Your task to perform on an android device: install app "AliExpress" Image 0: 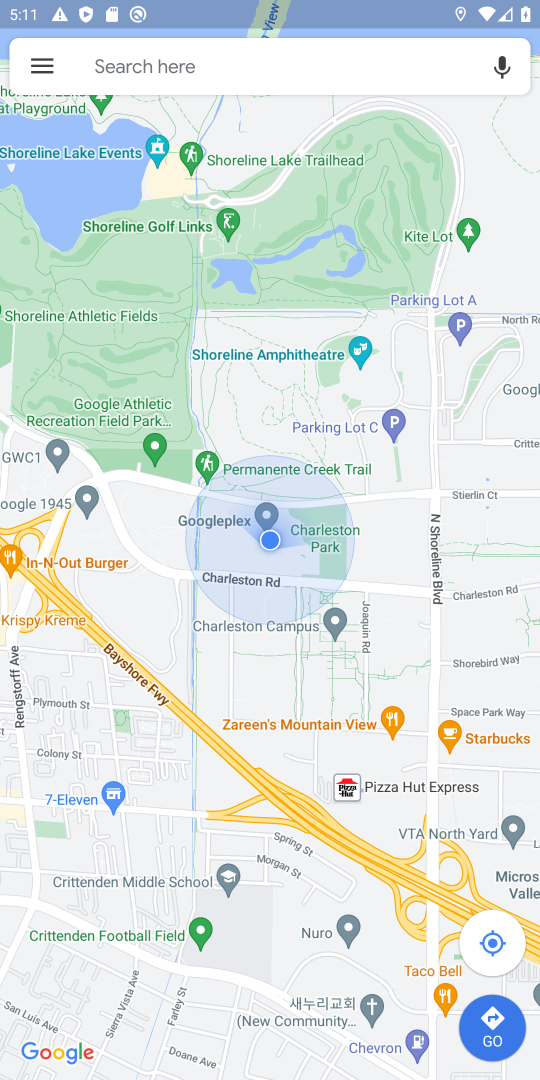
Step 0: press home button
Your task to perform on an android device: install app "AliExpress" Image 1: 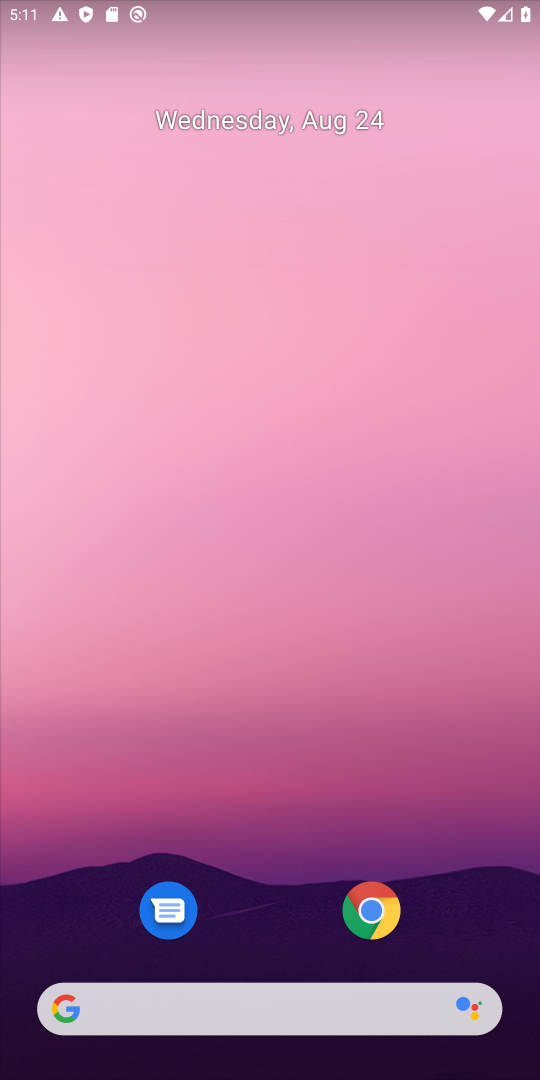
Step 1: drag from (282, 749) to (183, 30)
Your task to perform on an android device: install app "AliExpress" Image 2: 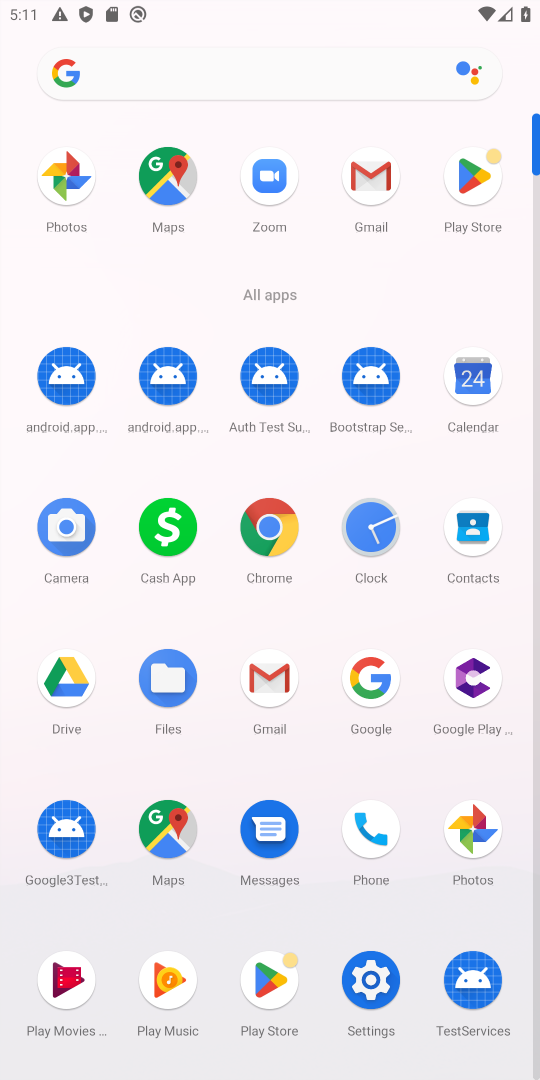
Step 2: click (475, 204)
Your task to perform on an android device: install app "AliExpress" Image 3: 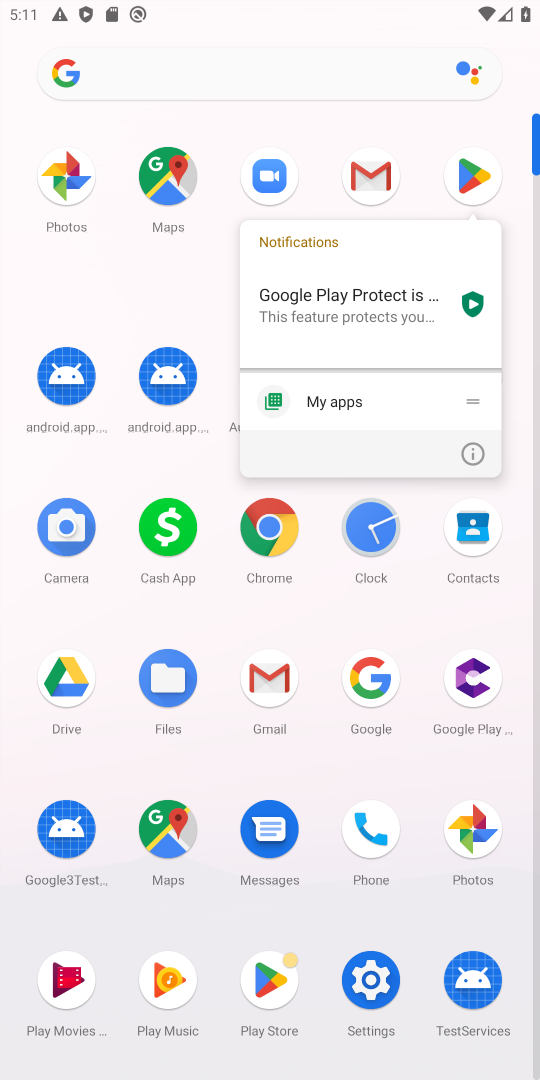
Step 3: click (469, 166)
Your task to perform on an android device: install app "AliExpress" Image 4: 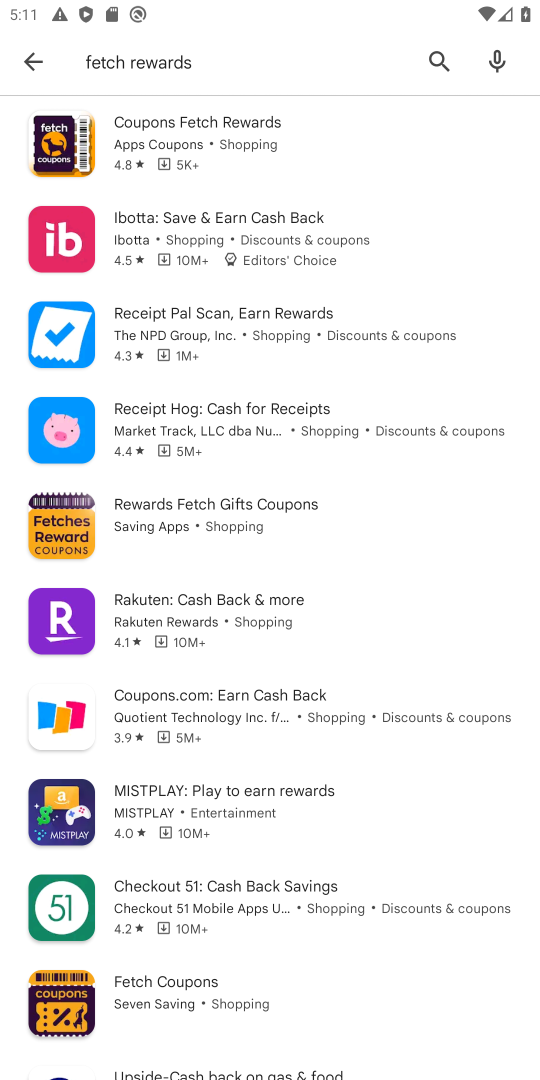
Step 4: click (434, 59)
Your task to perform on an android device: install app "AliExpress" Image 5: 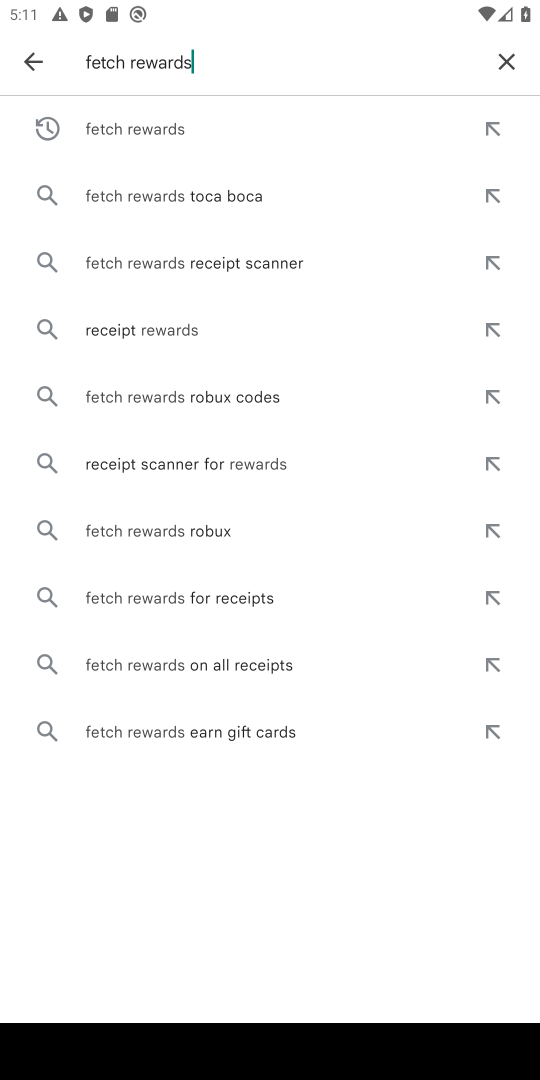
Step 5: click (504, 58)
Your task to perform on an android device: install app "AliExpress" Image 6: 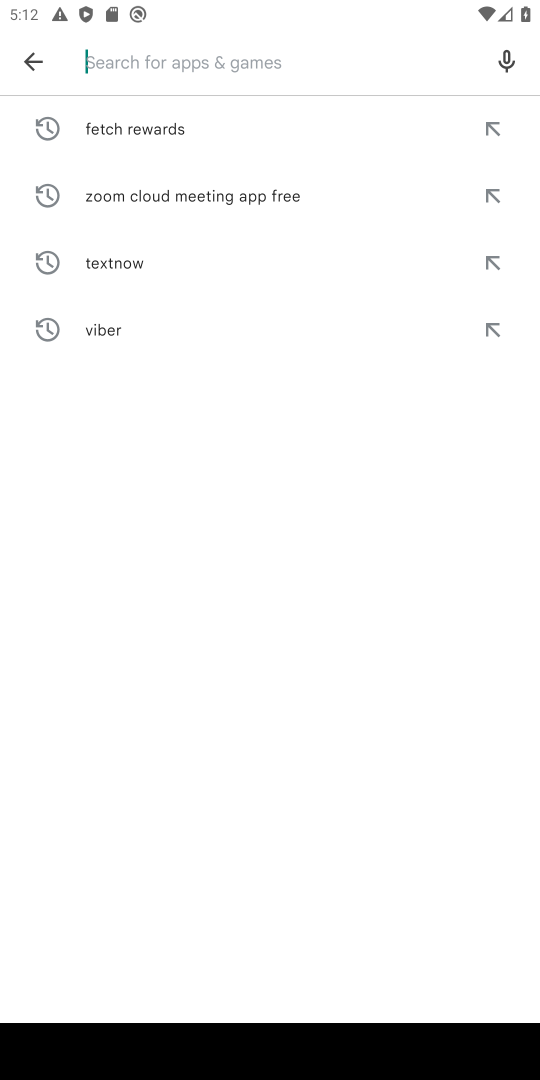
Step 6: type "AliExpress"
Your task to perform on an android device: install app "AliExpress" Image 7: 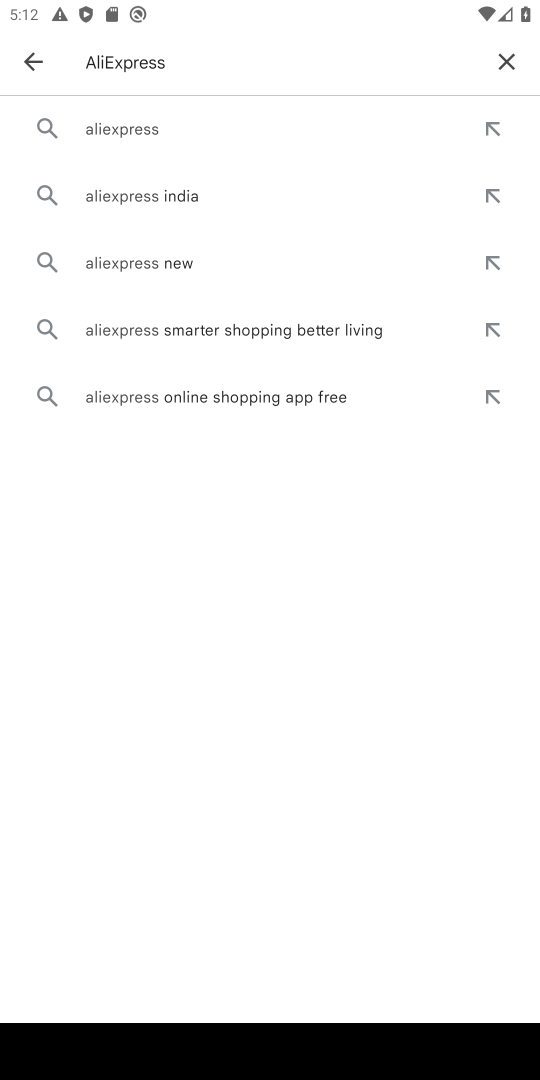
Step 7: click (157, 124)
Your task to perform on an android device: install app "AliExpress" Image 8: 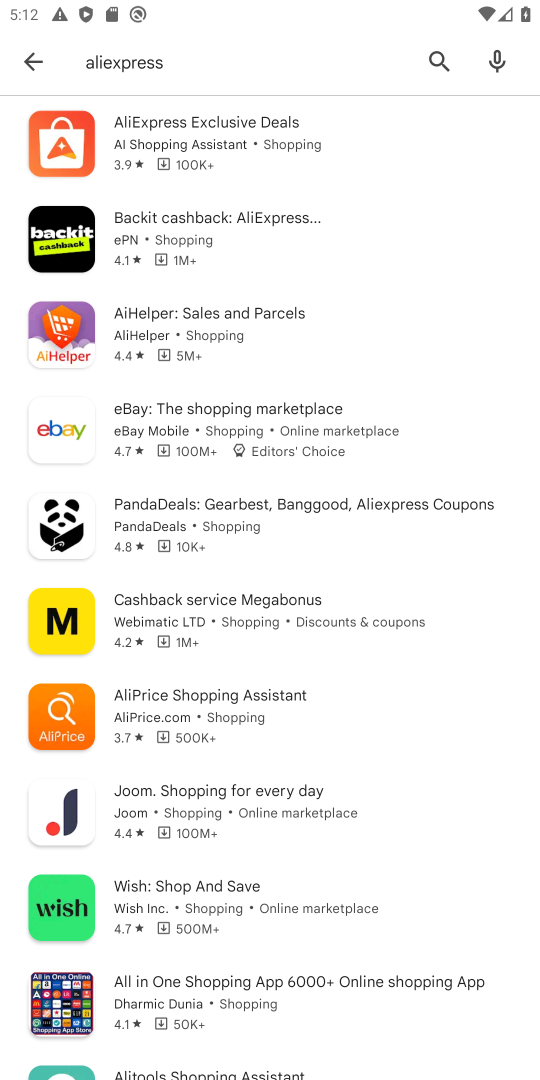
Step 8: click (178, 140)
Your task to perform on an android device: install app "AliExpress" Image 9: 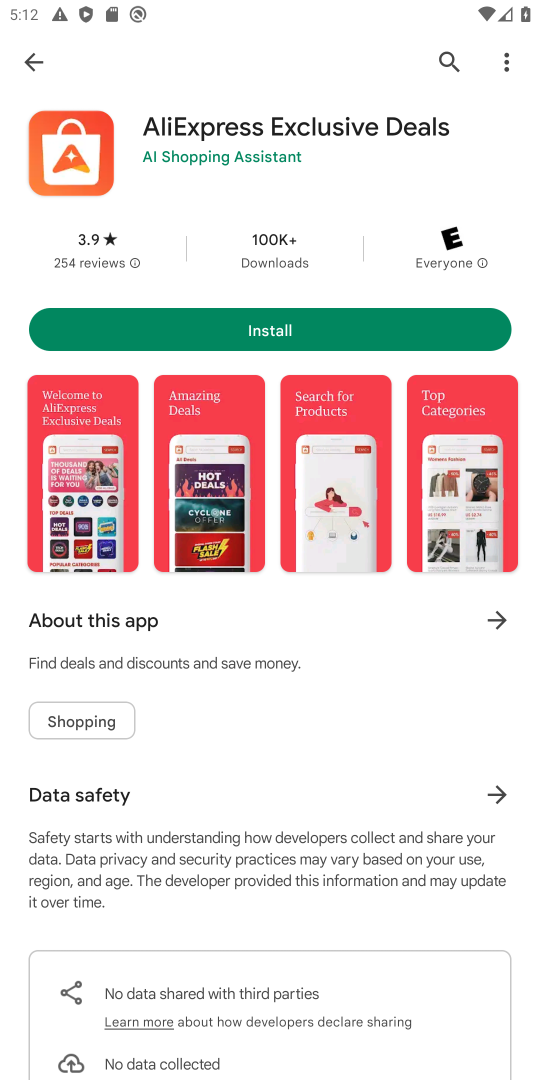
Step 9: click (329, 314)
Your task to perform on an android device: install app "AliExpress" Image 10: 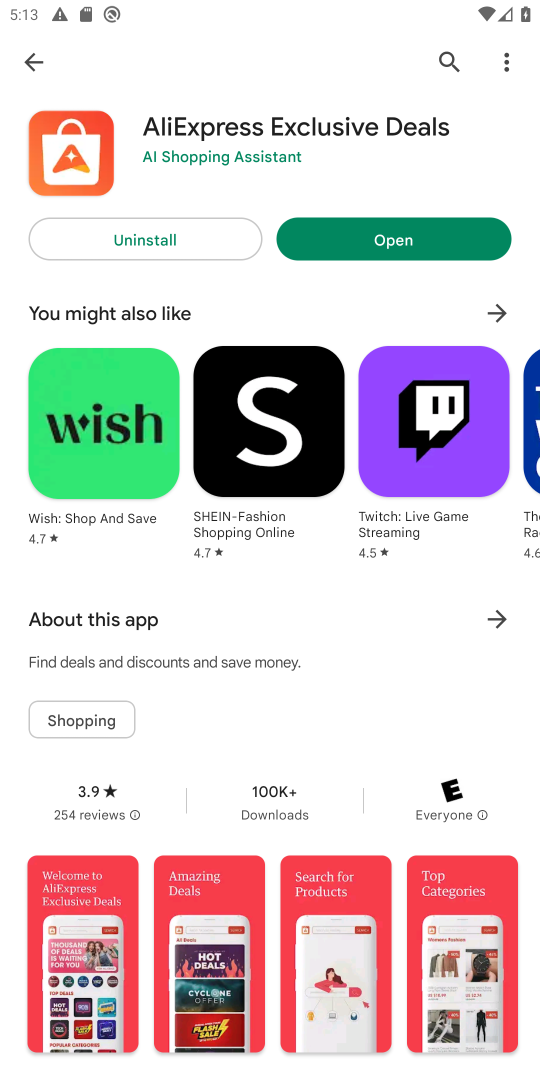
Step 10: task complete